Your task to perform on an android device: turn off priority inbox in the gmail app Image 0: 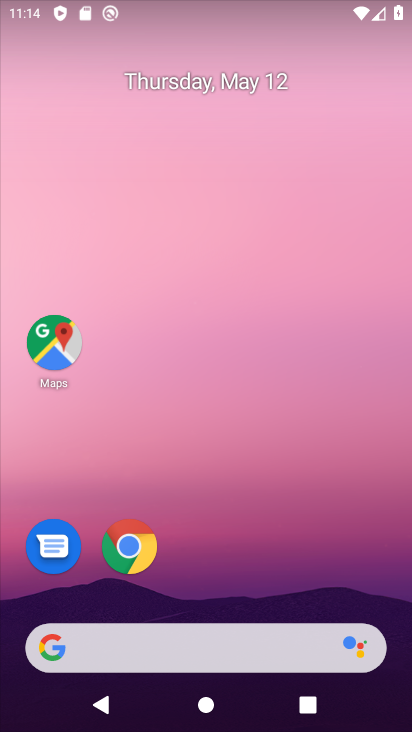
Step 0: drag from (229, 730) to (228, 157)
Your task to perform on an android device: turn off priority inbox in the gmail app Image 1: 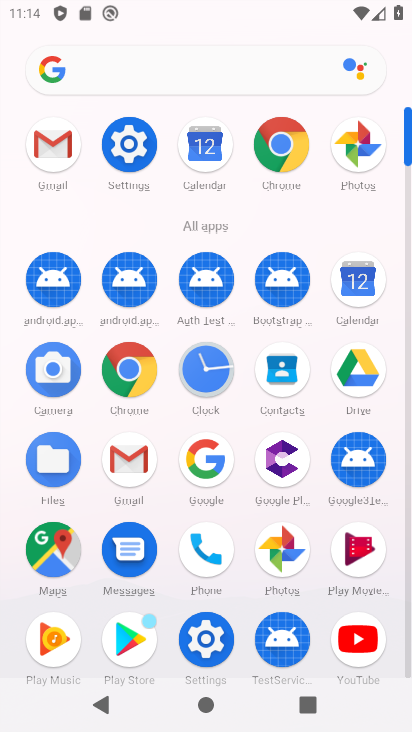
Step 1: click (128, 453)
Your task to perform on an android device: turn off priority inbox in the gmail app Image 2: 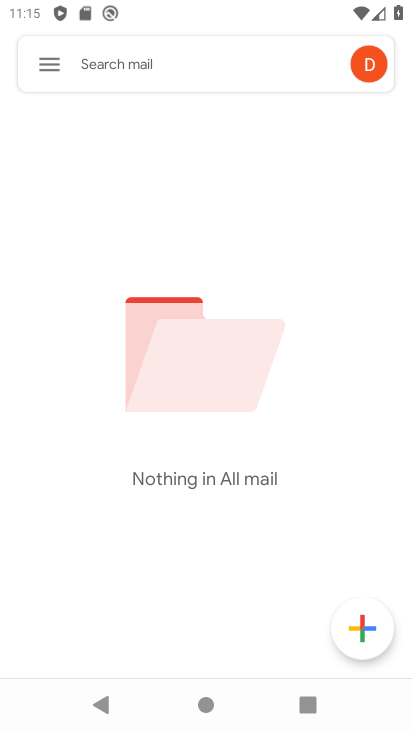
Step 2: click (47, 56)
Your task to perform on an android device: turn off priority inbox in the gmail app Image 3: 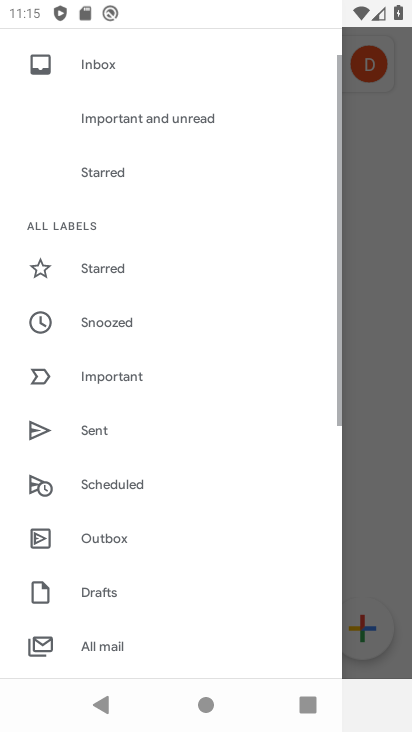
Step 3: drag from (127, 603) to (122, 186)
Your task to perform on an android device: turn off priority inbox in the gmail app Image 4: 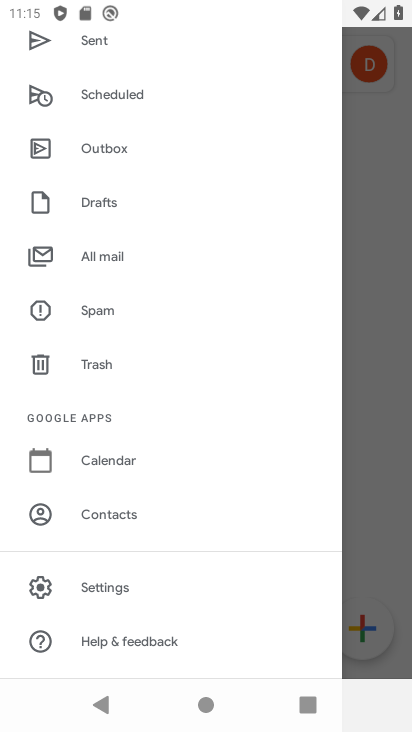
Step 4: click (107, 586)
Your task to perform on an android device: turn off priority inbox in the gmail app Image 5: 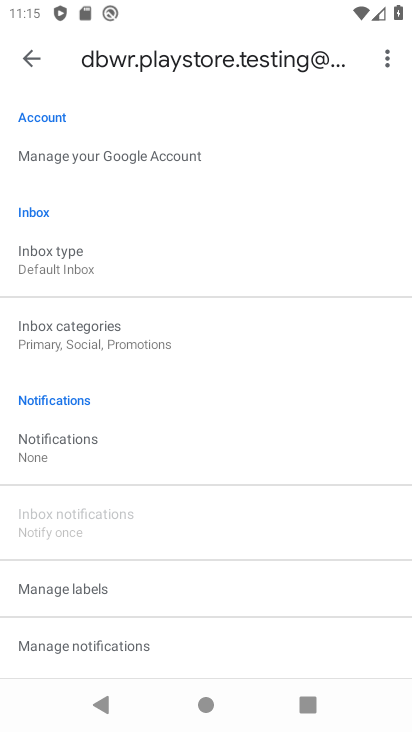
Step 5: click (56, 269)
Your task to perform on an android device: turn off priority inbox in the gmail app Image 6: 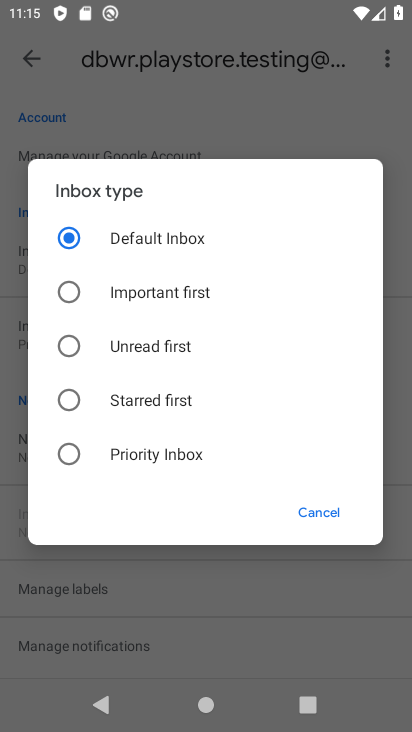
Step 6: click (319, 514)
Your task to perform on an android device: turn off priority inbox in the gmail app Image 7: 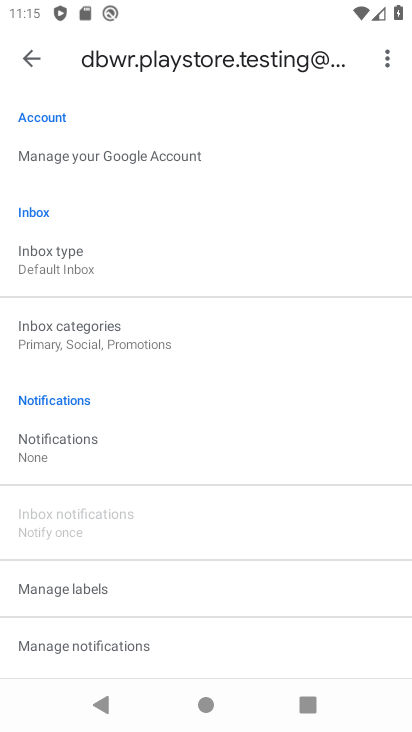
Step 7: task complete